Your task to perform on an android device: uninstall "Firefox Browser" Image 0: 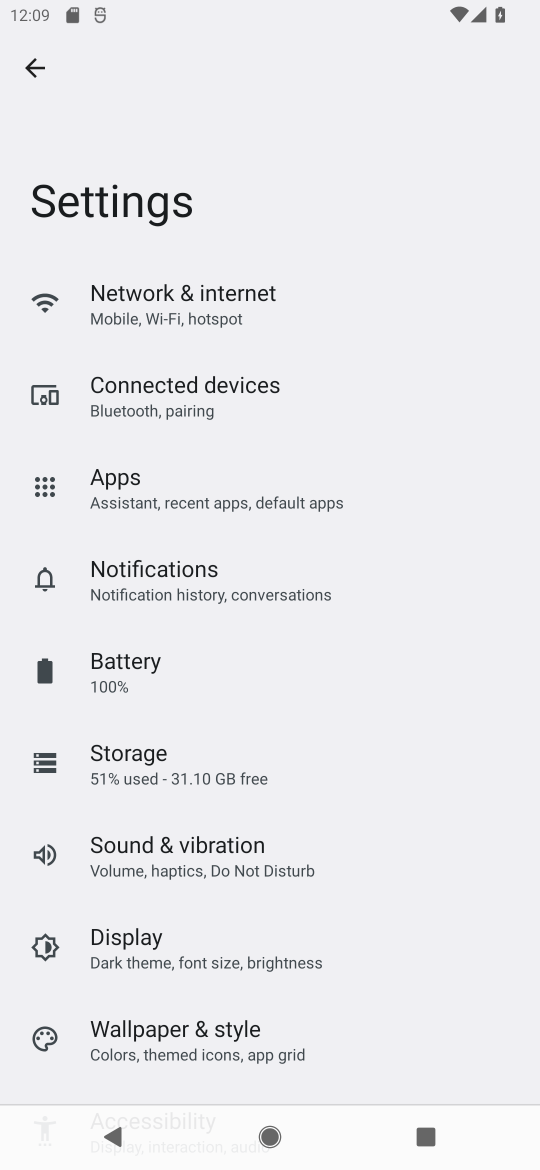
Step 0: press home button
Your task to perform on an android device: uninstall "Firefox Browser" Image 1: 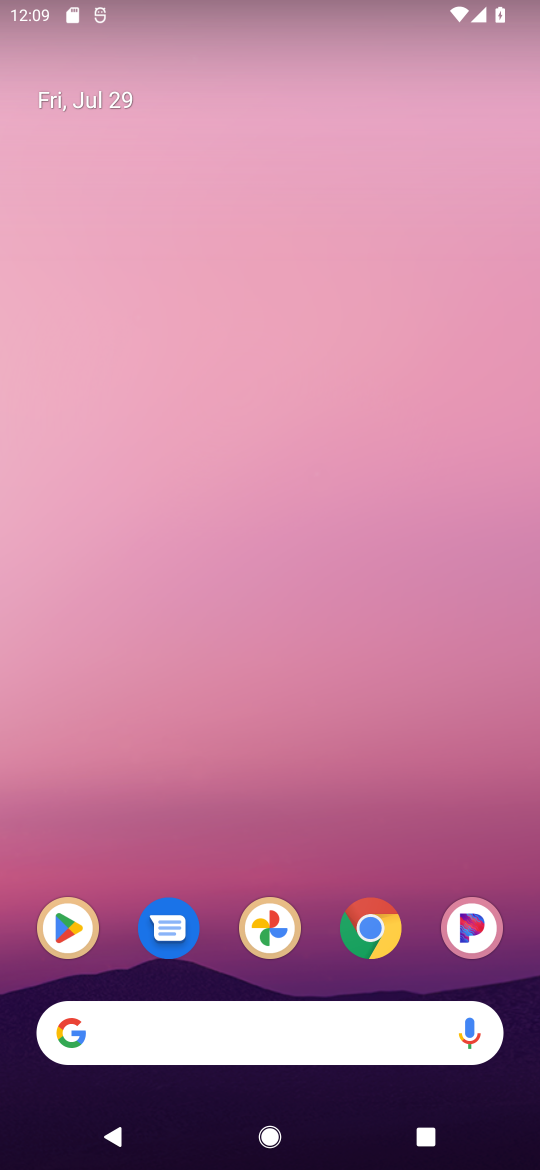
Step 1: drag from (272, 707) to (316, 70)
Your task to perform on an android device: uninstall "Firefox Browser" Image 2: 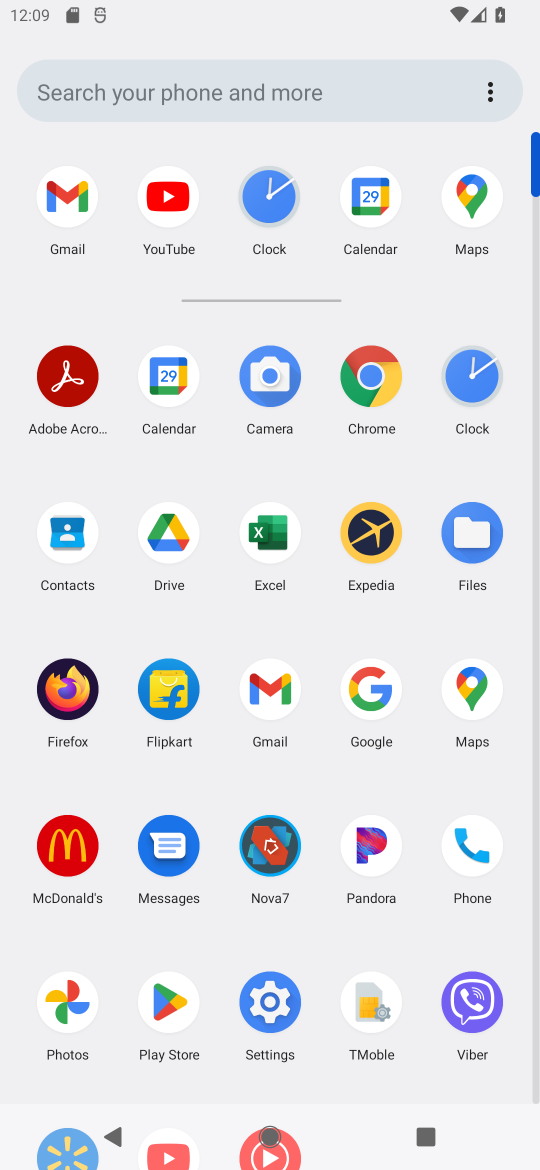
Step 2: click (171, 999)
Your task to perform on an android device: uninstall "Firefox Browser" Image 3: 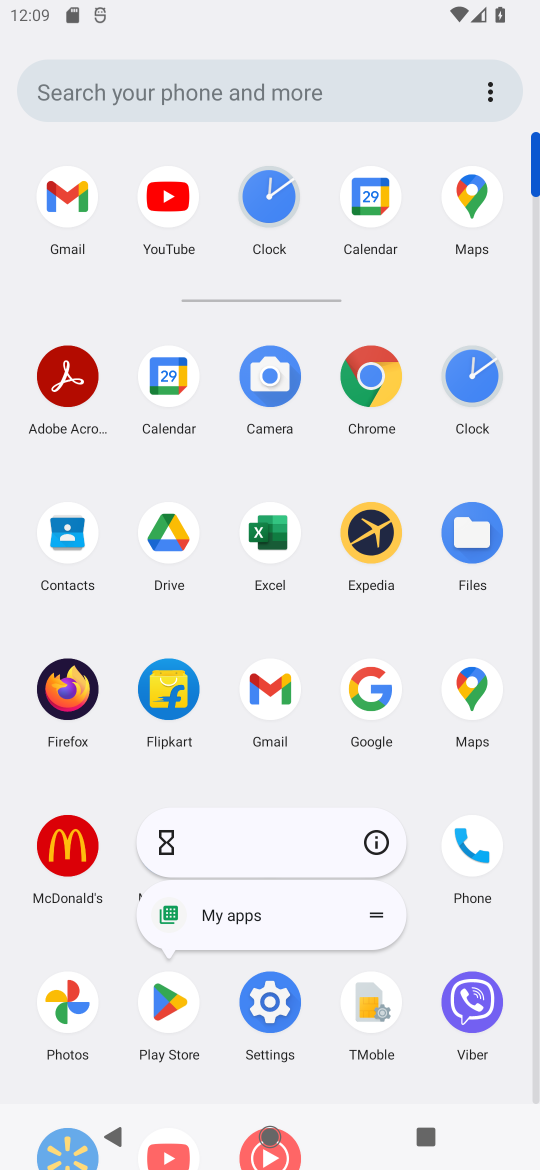
Step 3: click (171, 1001)
Your task to perform on an android device: uninstall "Firefox Browser" Image 4: 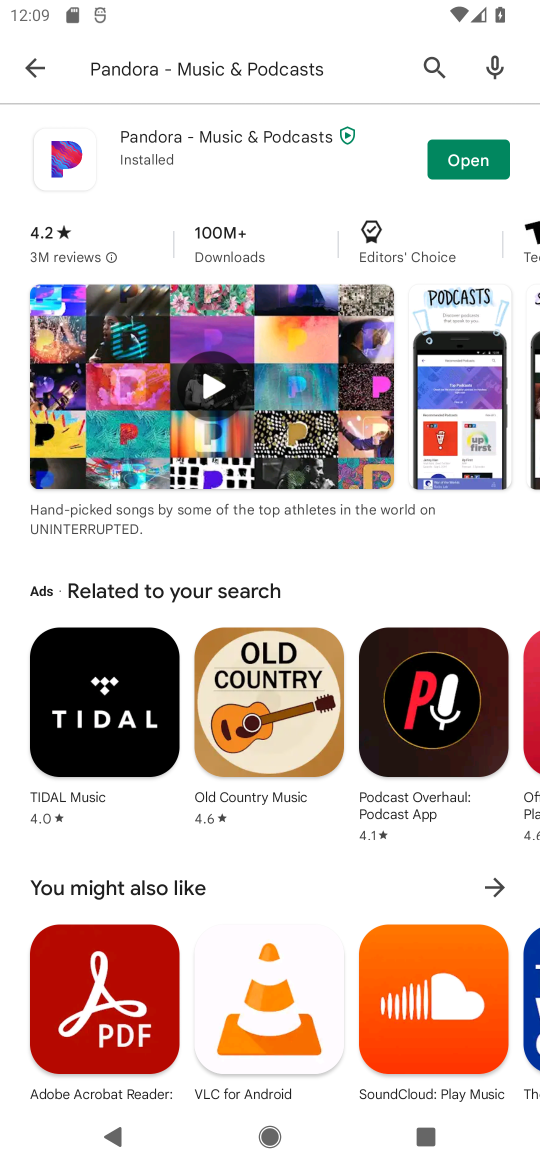
Step 4: click (274, 68)
Your task to perform on an android device: uninstall "Firefox Browser" Image 5: 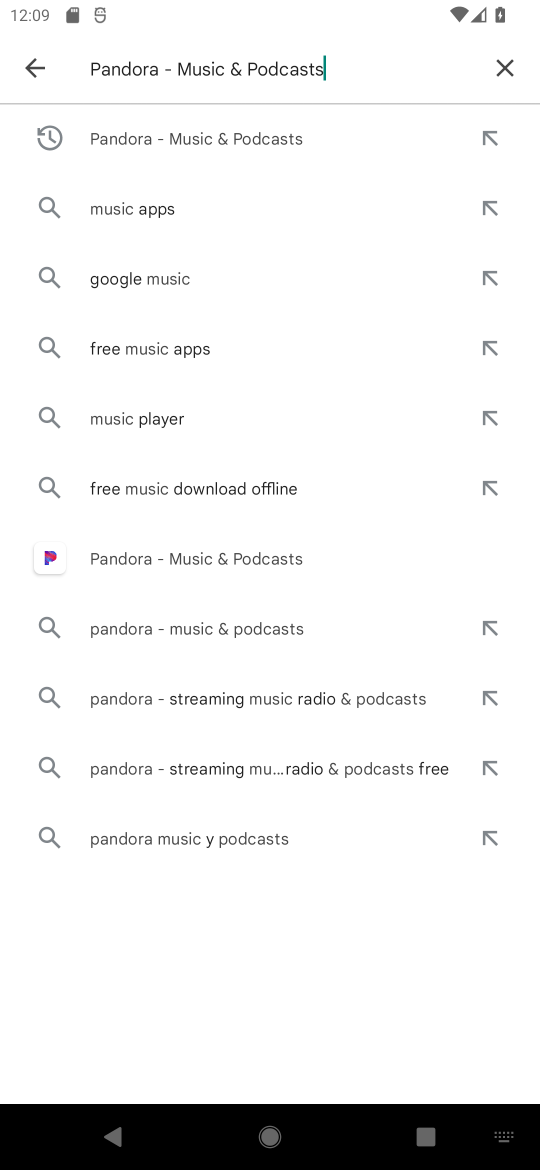
Step 5: click (498, 70)
Your task to perform on an android device: uninstall "Firefox Browser" Image 6: 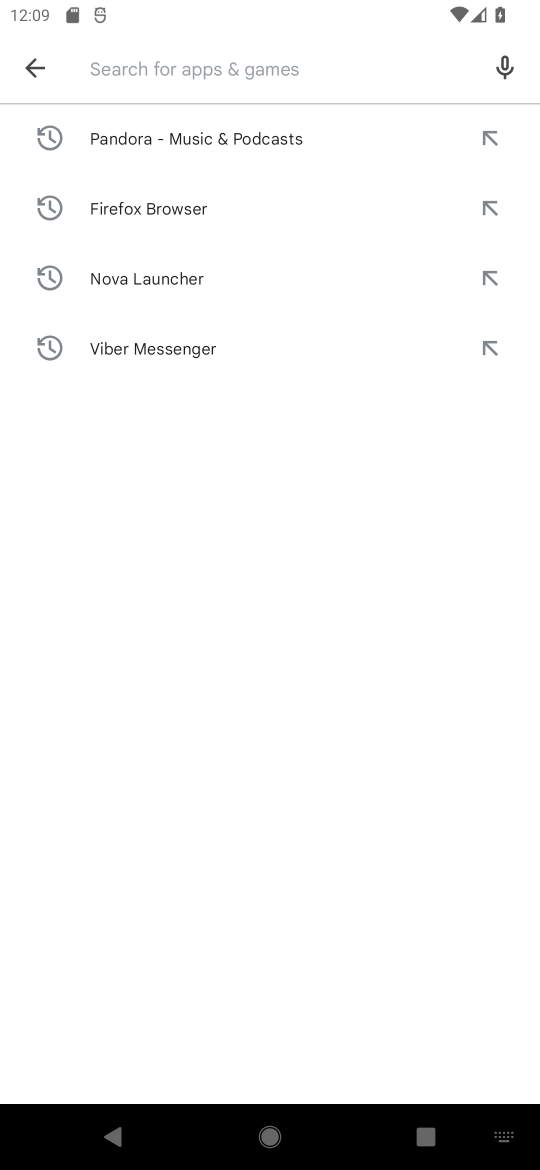
Step 6: type "Firefox Browser"
Your task to perform on an android device: uninstall "Firefox Browser" Image 7: 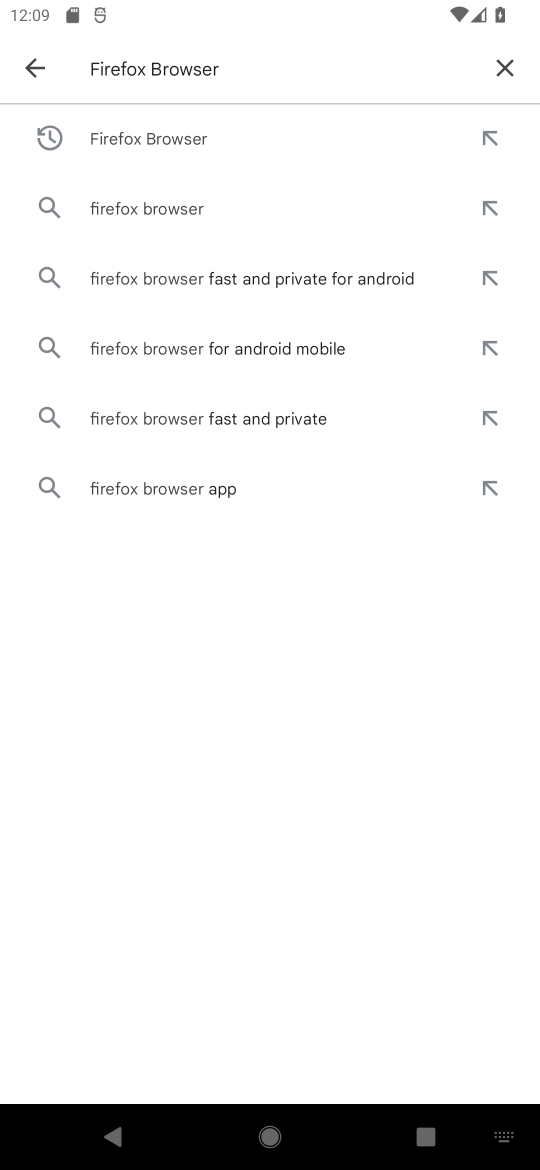
Step 7: press enter
Your task to perform on an android device: uninstall "Firefox Browser" Image 8: 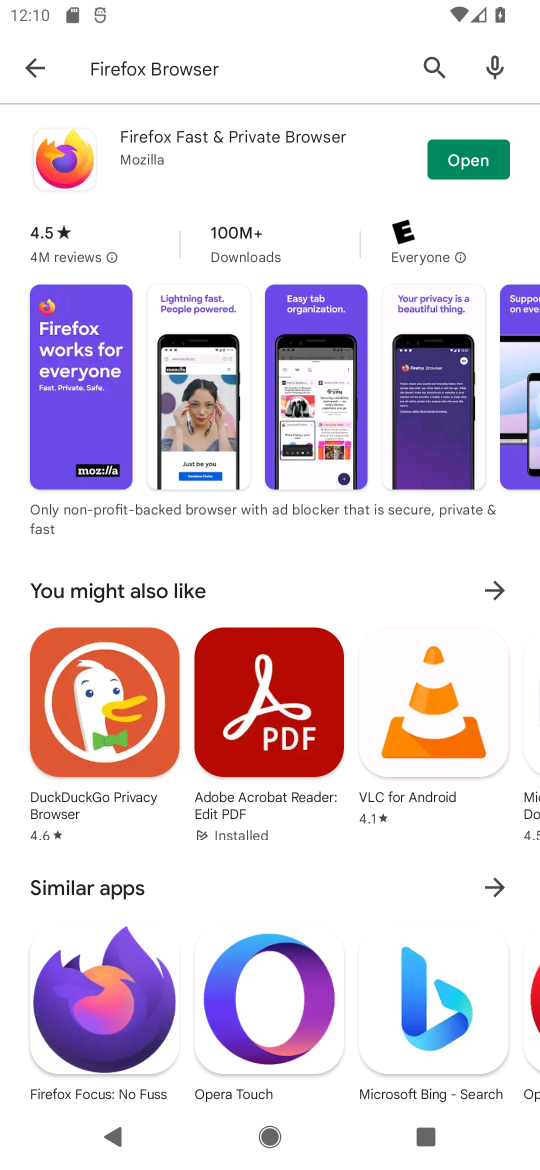
Step 8: click (254, 154)
Your task to perform on an android device: uninstall "Firefox Browser" Image 9: 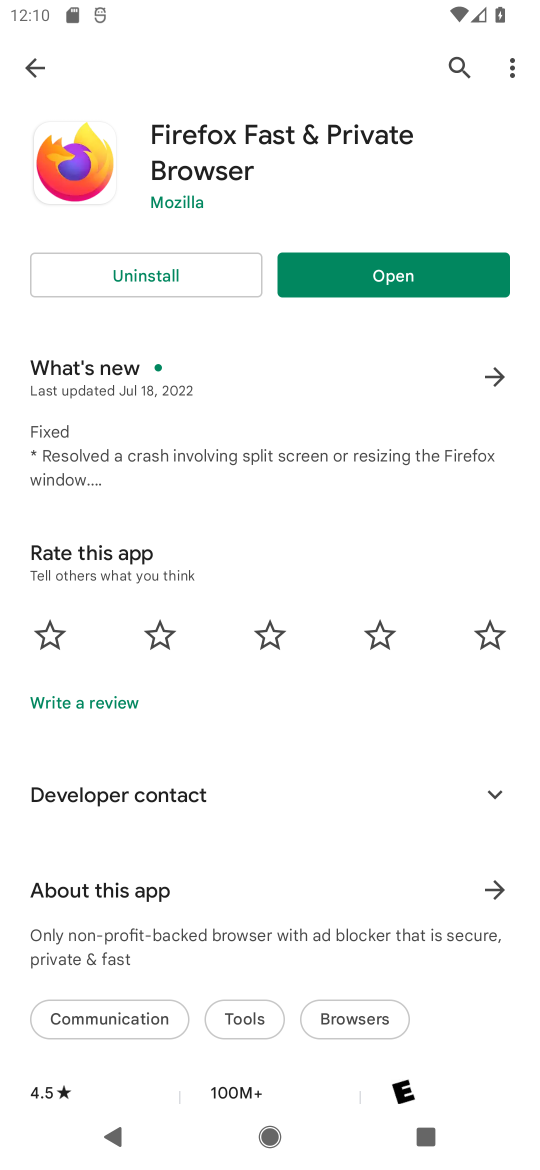
Step 9: click (149, 273)
Your task to perform on an android device: uninstall "Firefox Browser" Image 10: 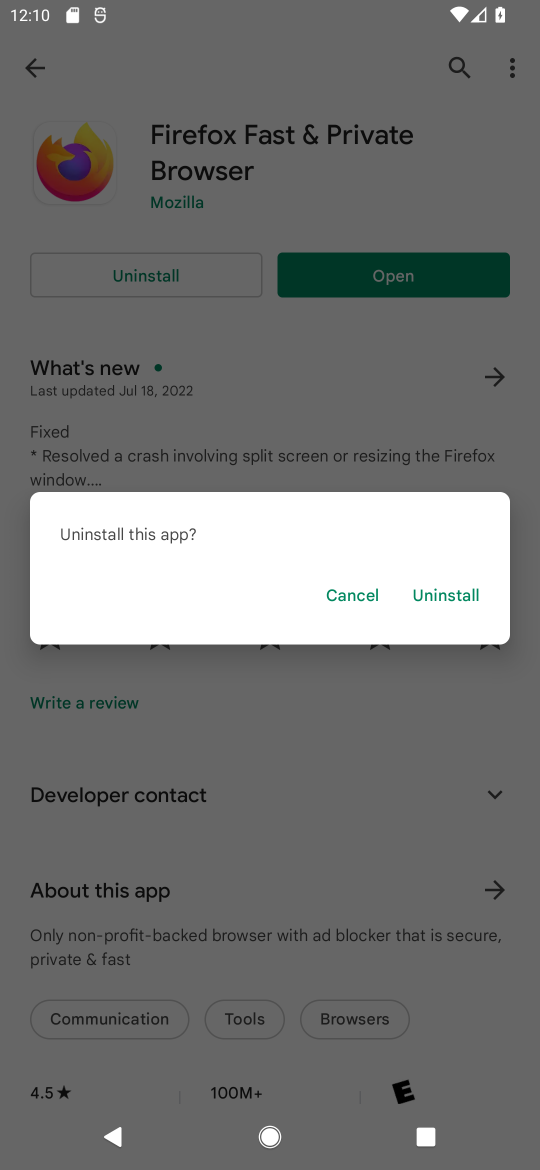
Step 10: click (435, 605)
Your task to perform on an android device: uninstall "Firefox Browser" Image 11: 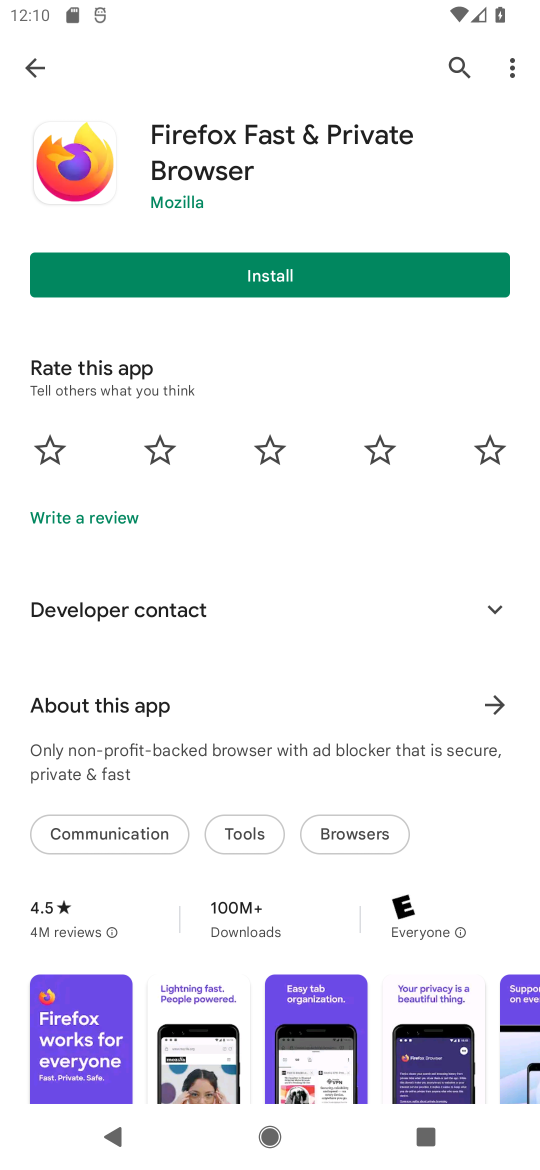
Step 11: task complete